Your task to perform on an android device: Open display settings Image 0: 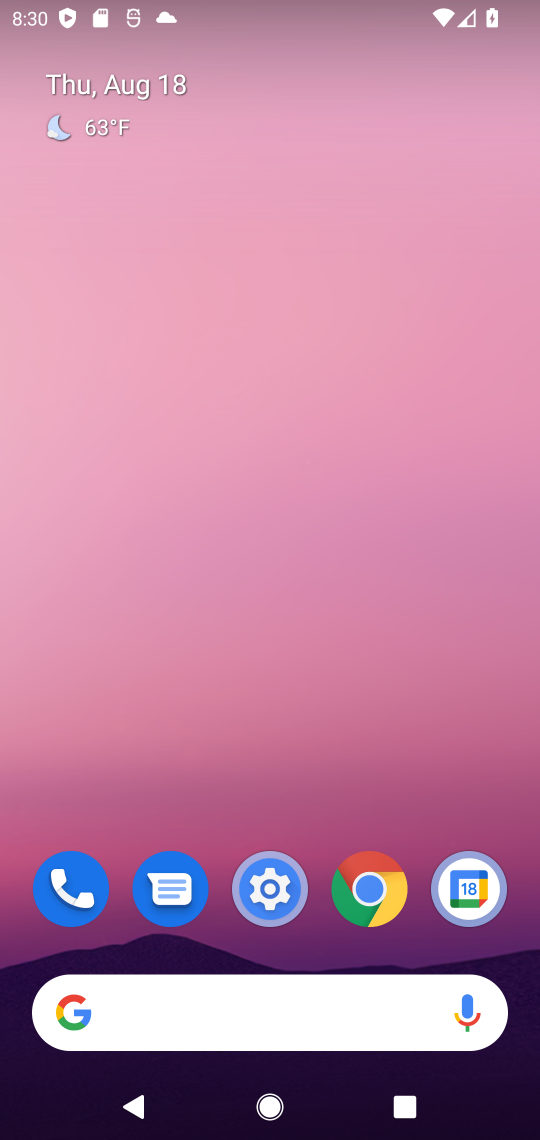
Step 0: press home button
Your task to perform on an android device: Open display settings Image 1: 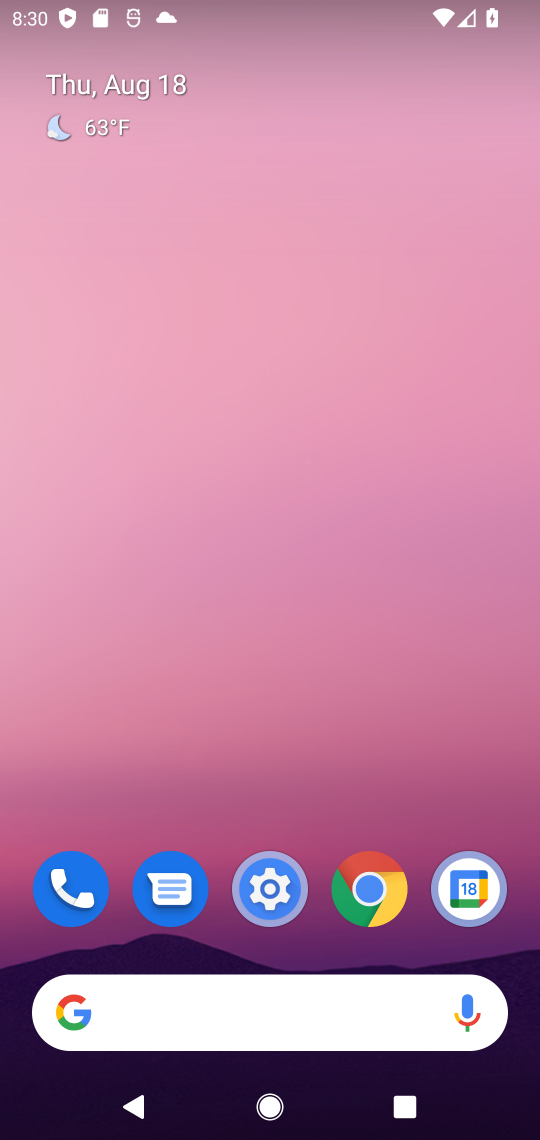
Step 1: drag from (262, 801) to (211, 3)
Your task to perform on an android device: Open display settings Image 2: 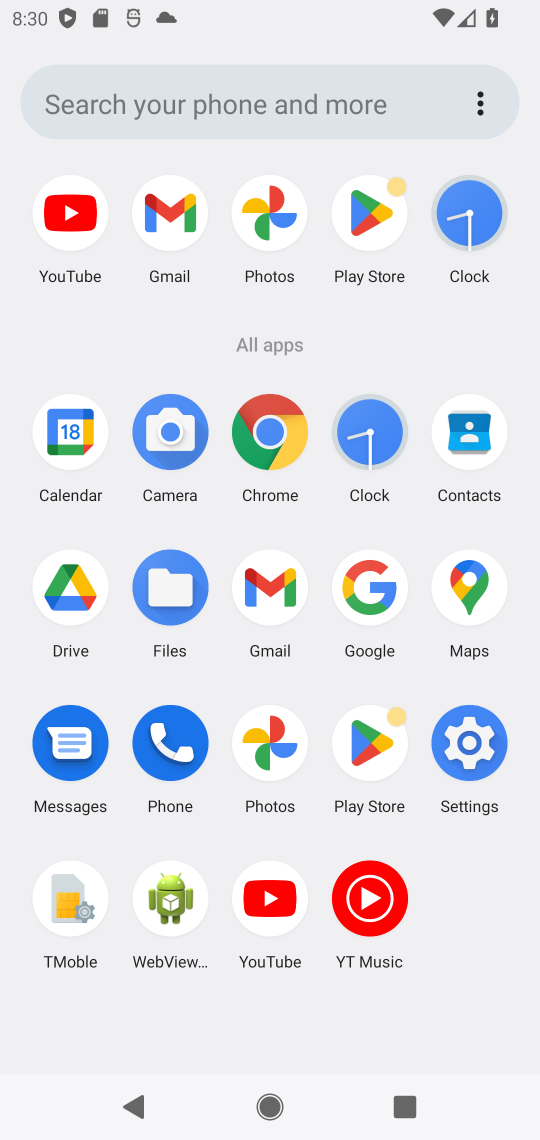
Step 2: click (465, 747)
Your task to perform on an android device: Open display settings Image 3: 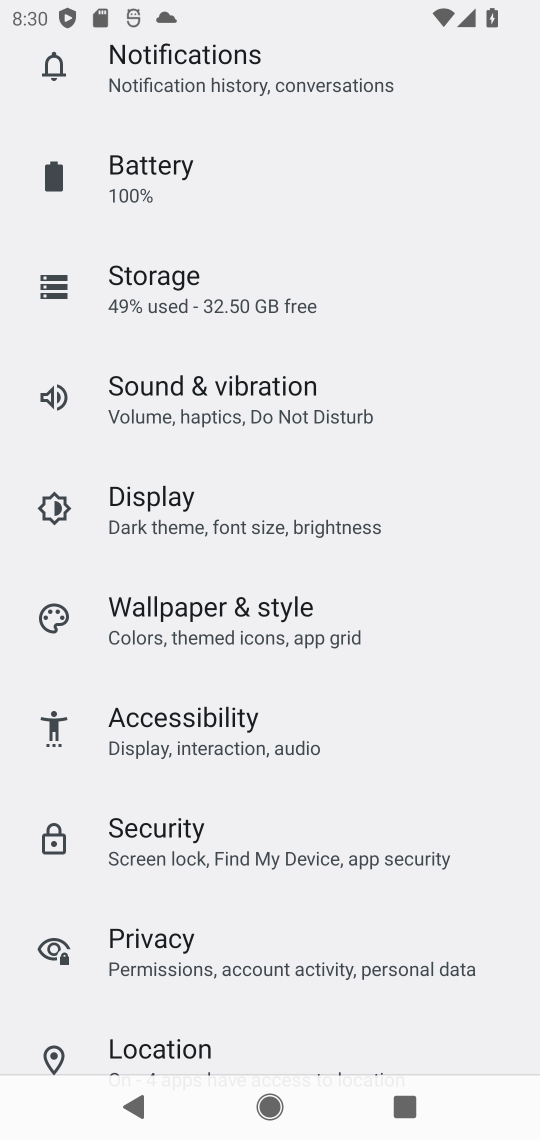
Step 3: click (191, 492)
Your task to perform on an android device: Open display settings Image 4: 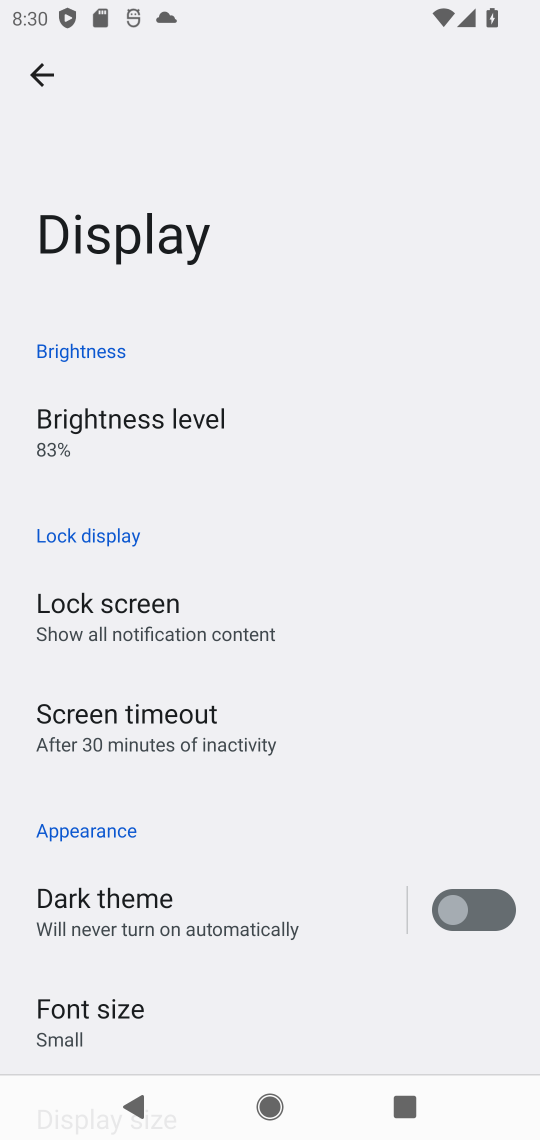
Step 4: task complete